Your task to perform on an android device: Set the phone to "Do not disturb". Image 0: 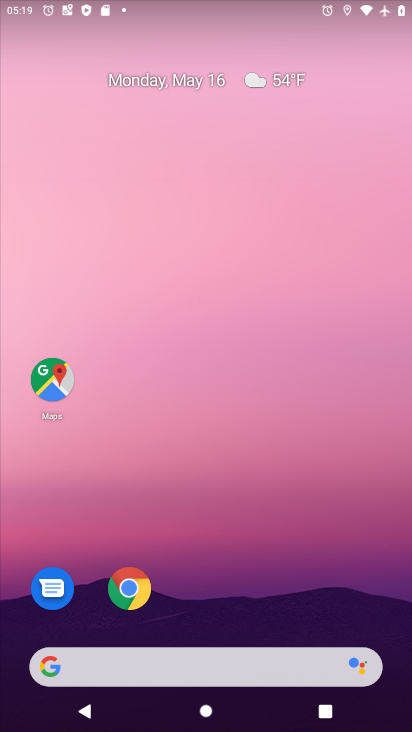
Step 0: drag from (185, 537) to (167, 47)
Your task to perform on an android device: Set the phone to "Do not disturb". Image 1: 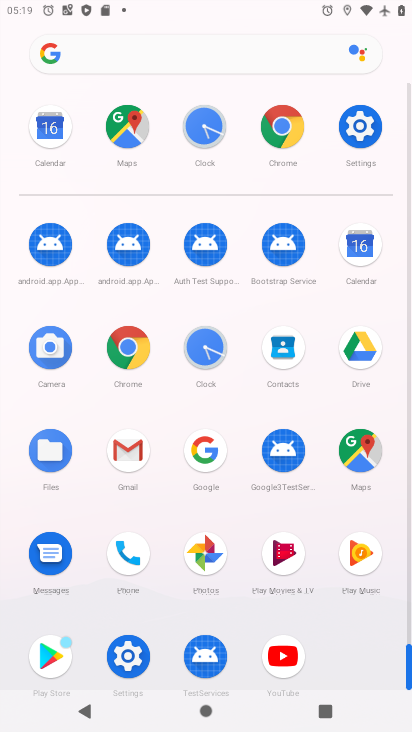
Step 1: drag from (9, 503) to (21, 138)
Your task to perform on an android device: Set the phone to "Do not disturb". Image 2: 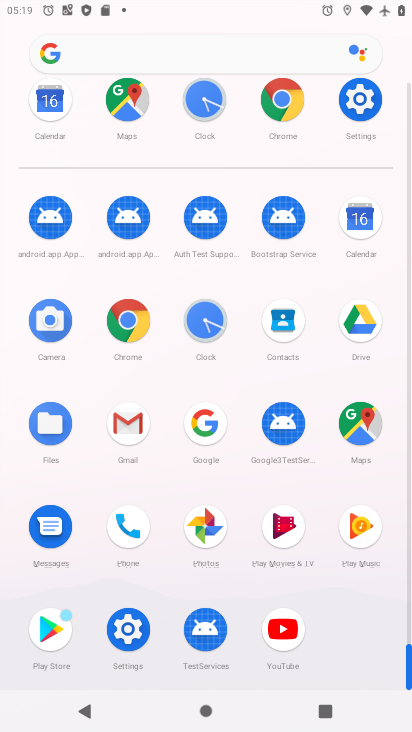
Step 2: click (125, 628)
Your task to perform on an android device: Set the phone to "Do not disturb". Image 3: 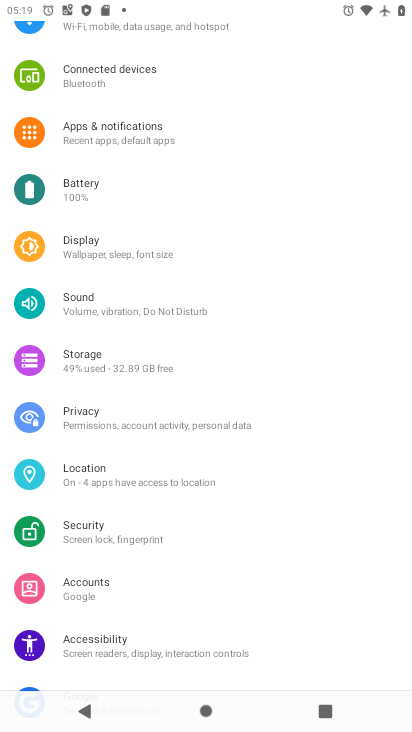
Step 3: drag from (162, 455) to (148, 179)
Your task to perform on an android device: Set the phone to "Do not disturb". Image 4: 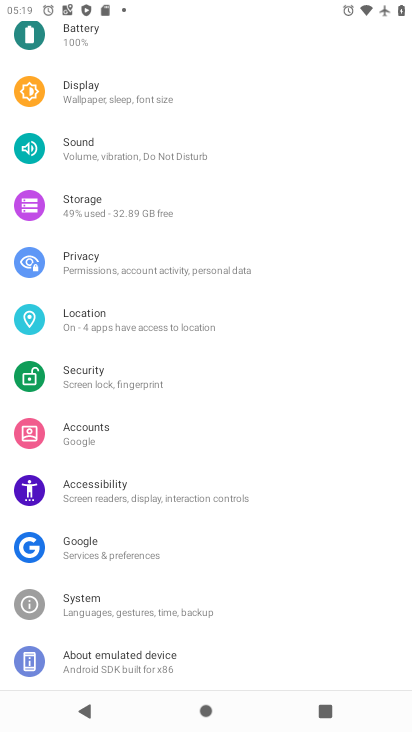
Step 4: drag from (154, 151) to (172, 475)
Your task to perform on an android device: Set the phone to "Do not disturb". Image 5: 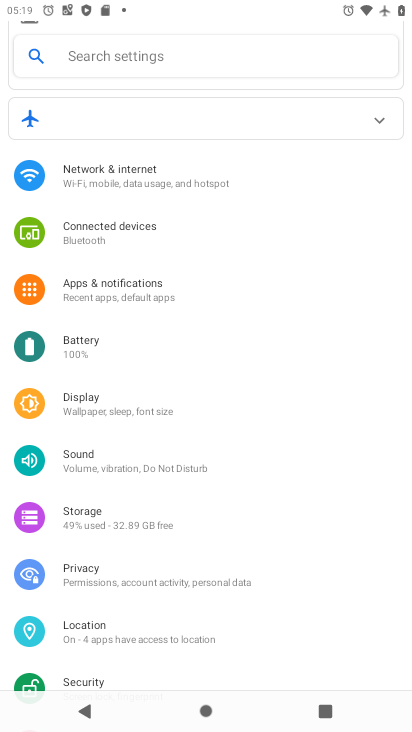
Step 5: drag from (182, 168) to (191, 265)
Your task to perform on an android device: Set the phone to "Do not disturb". Image 6: 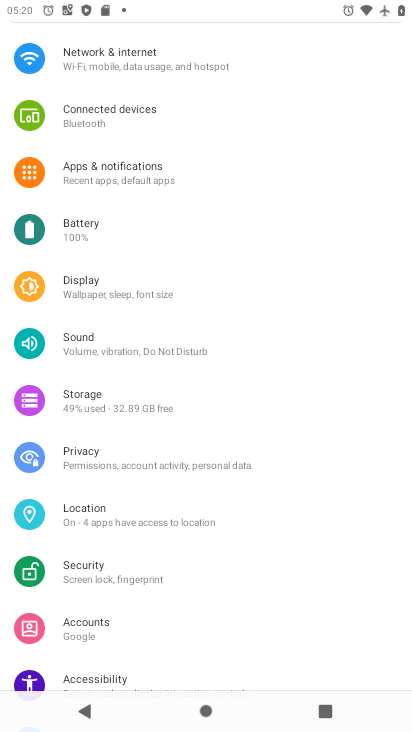
Step 6: click (131, 352)
Your task to perform on an android device: Set the phone to "Do not disturb". Image 7: 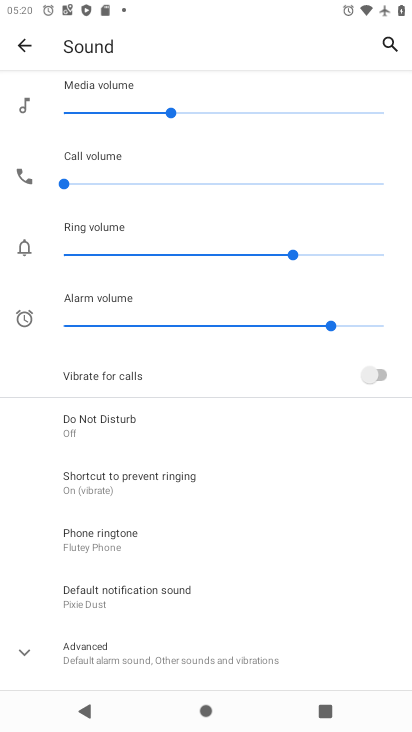
Step 7: click (12, 653)
Your task to perform on an android device: Set the phone to "Do not disturb". Image 8: 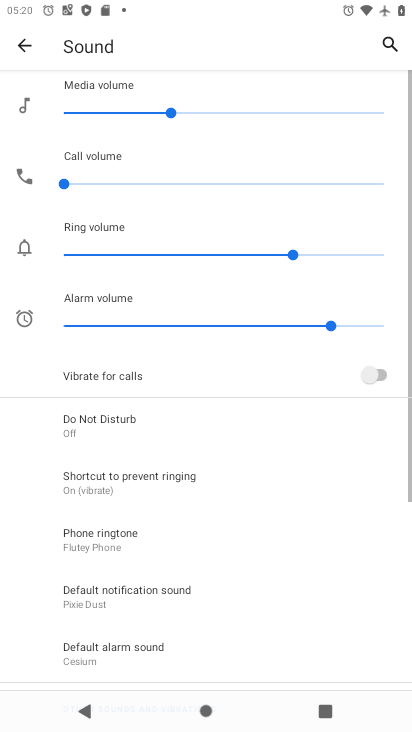
Step 8: drag from (221, 587) to (214, 188)
Your task to perform on an android device: Set the phone to "Do not disturb". Image 9: 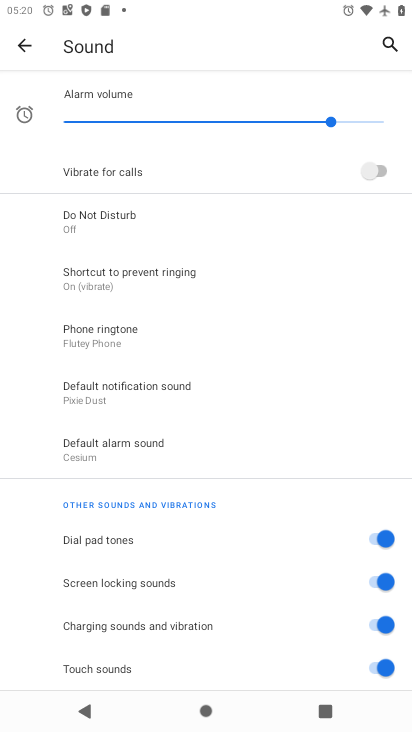
Step 9: click (128, 226)
Your task to perform on an android device: Set the phone to "Do not disturb". Image 10: 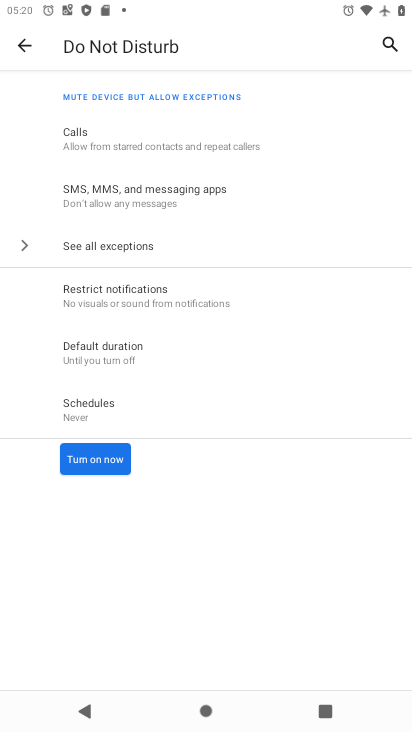
Step 10: click (97, 452)
Your task to perform on an android device: Set the phone to "Do not disturb". Image 11: 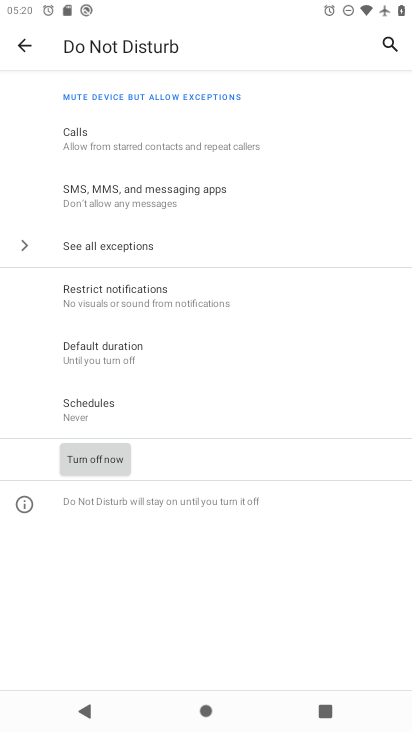
Step 11: task complete